Your task to perform on an android device: find which apps use the phone's location Image 0: 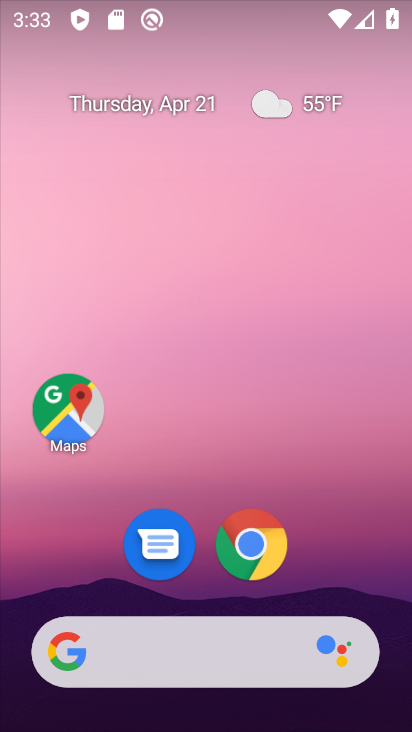
Step 0: drag from (231, 647) to (260, 194)
Your task to perform on an android device: find which apps use the phone's location Image 1: 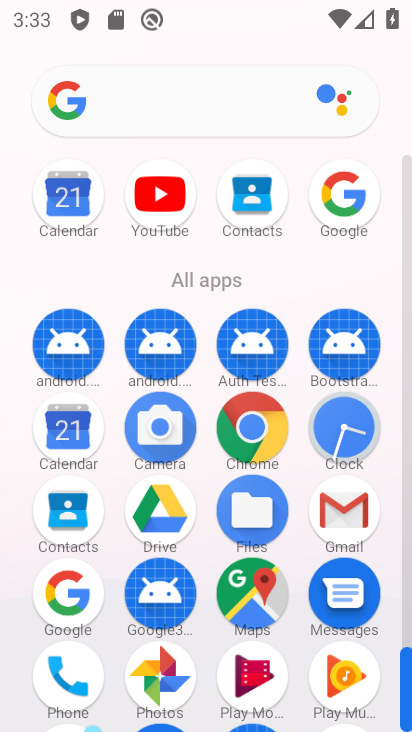
Step 1: drag from (218, 589) to (227, 178)
Your task to perform on an android device: find which apps use the phone's location Image 2: 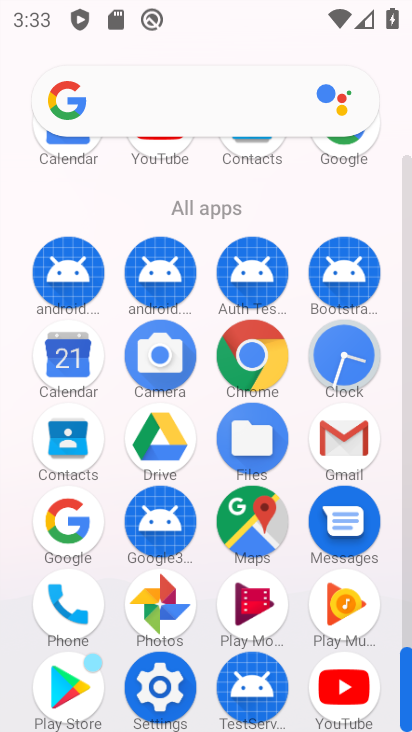
Step 2: click (160, 697)
Your task to perform on an android device: find which apps use the phone's location Image 3: 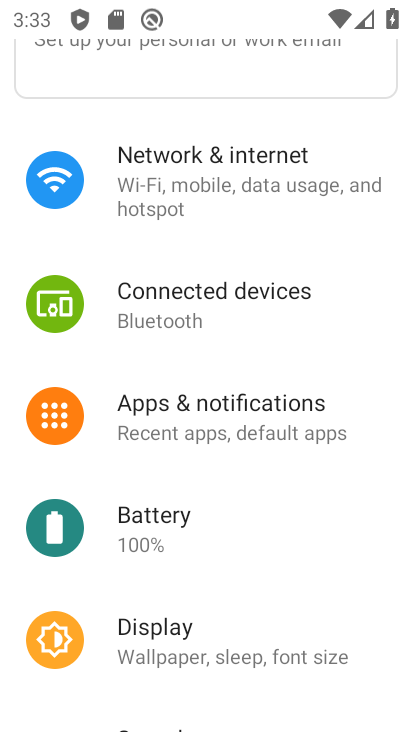
Step 3: drag from (178, 607) to (247, 63)
Your task to perform on an android device: find which apps use the phone's location Image 4: 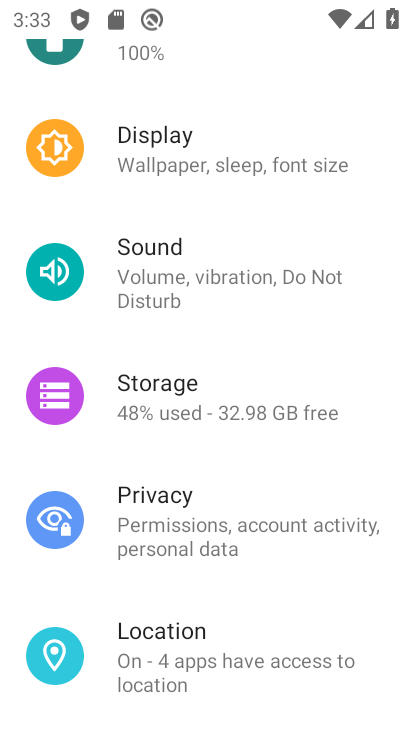
Step 4: click (177, 637)
Your task to perform on an android device: find which apps use the phone's location Image 5: 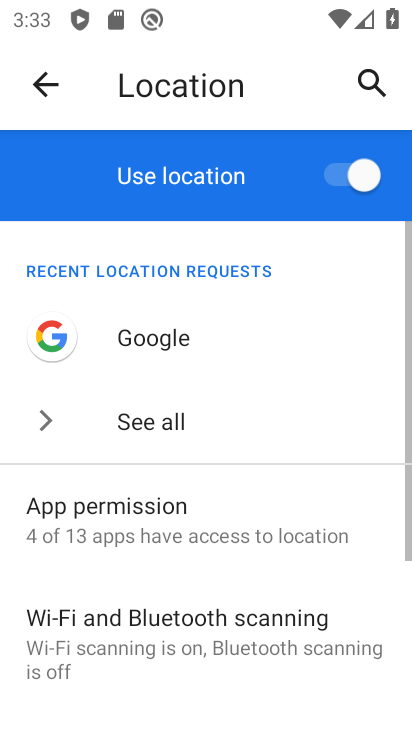
Step 5: click (144, 528)
Your task to perform on an android device: find which apps use the phone's location Image 6: 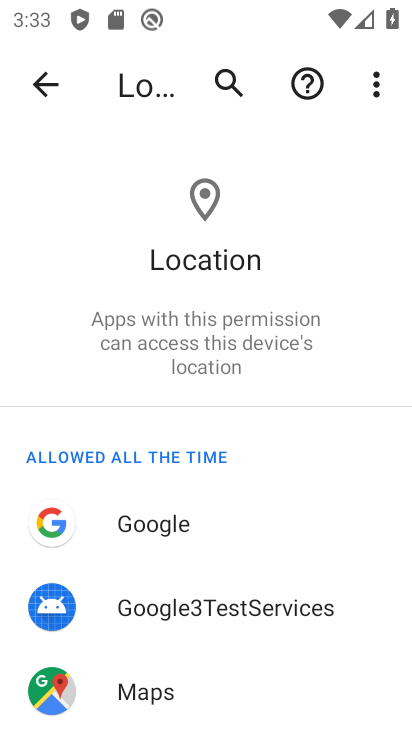
Step 6: task complete